Your task to perform on an android device: What's the weather going to be this weekend? Image 0: 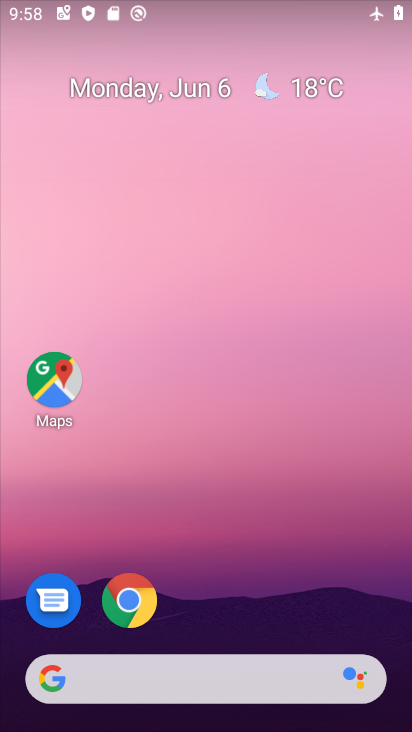
Step 0: drag from (249, 539) to (222, 23)
Your task to perform on an android device: What's the weather going to be this weekend? Image 1: 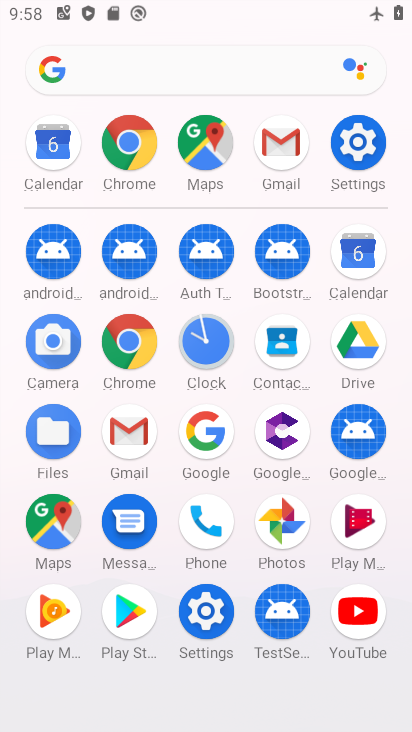
Step 1: drag from (13, 586) to (20, 238)
Your task to perform on an android device: What's the weather going to be this weekend? Image 2: 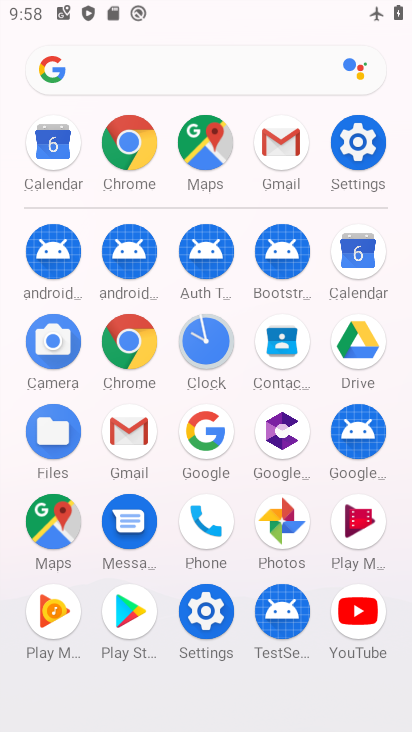
Step 2: click (128, 335)
Your task to perform on an android device: What's the weather going to be this weekend? Image 3: 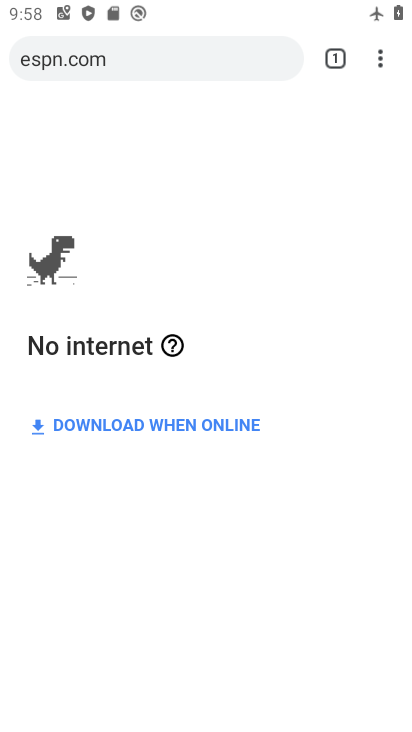
Step 3: drag from (279, 0) to (305, 356)
Your task to perform on an android device: What's the weather going to be this weekend? Image 4: 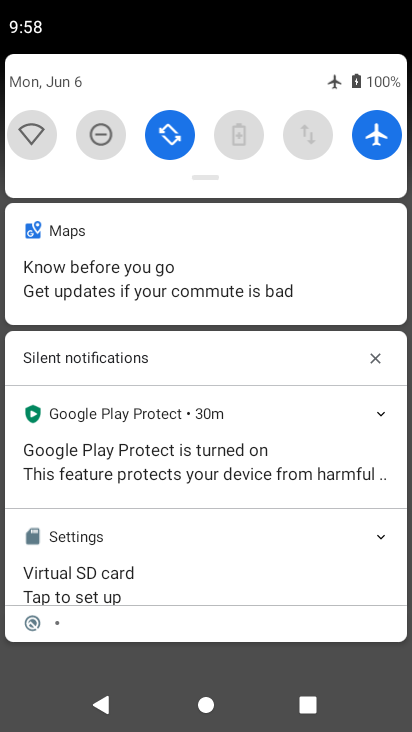
Step 4: click (29, 126)
Your task to perform on an android device: What's the weather going to be this weekend? Image 5: 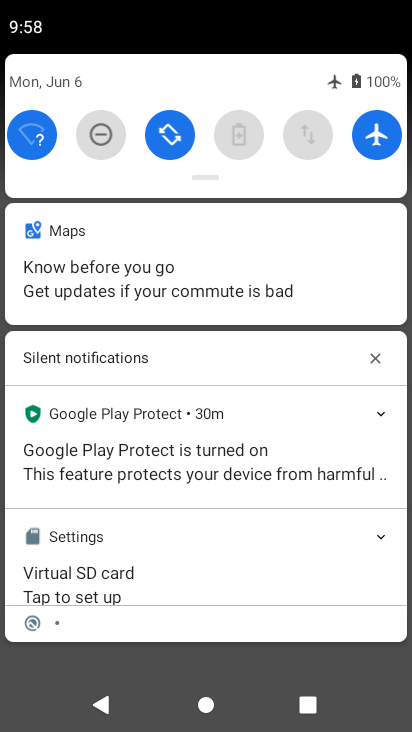
Step 5: drag from (306, 654) to (400, 174)
Your task to perform on an android device: What's the weather going to be this weekend? Image 6: 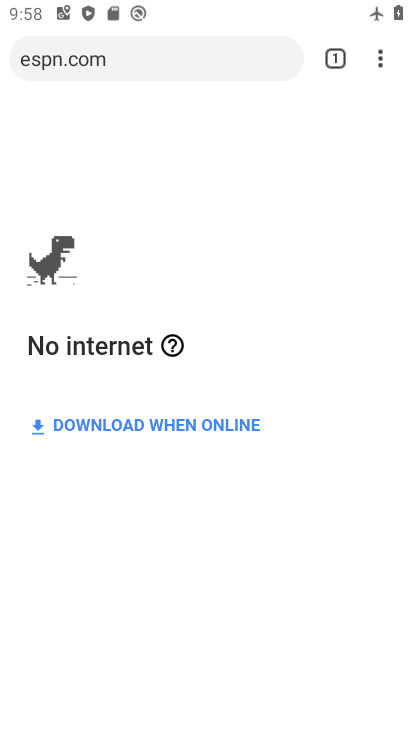
Step 6: click (152, 58)
Your task to perform on an android device: What's the weather going to be this weekend? Image 7: 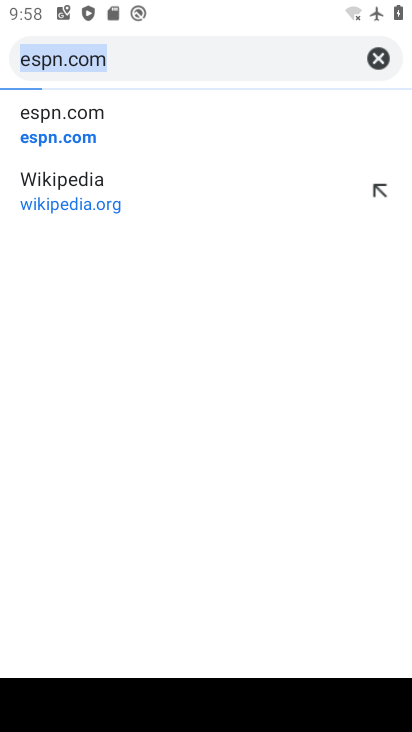
Step 7: click (376, 51)
Your task to perform on an android device: What's the weather going to be this weekend? Image 8: 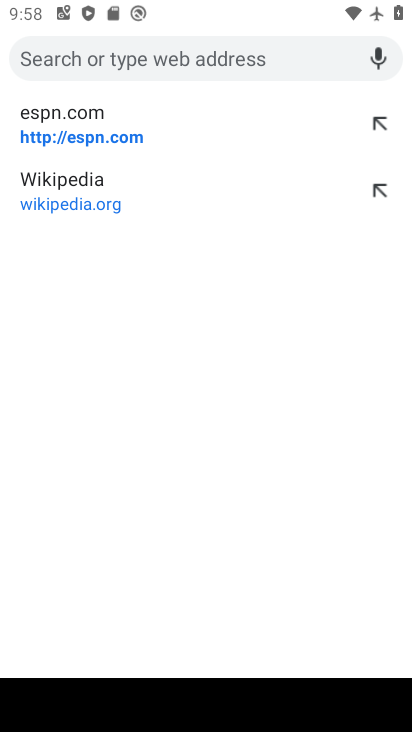
Step 8: click (188, 62)
Your task to perform on an android device: What's the weather going to be this weekend? Image 9: 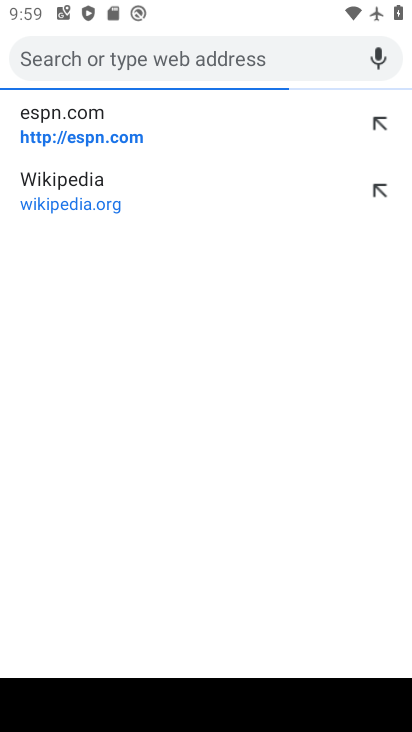
Step 9: type "What's the weather going to be this weekend?"
Your task to perform on an android device: What's the weather going to be this weekend? Image 10: 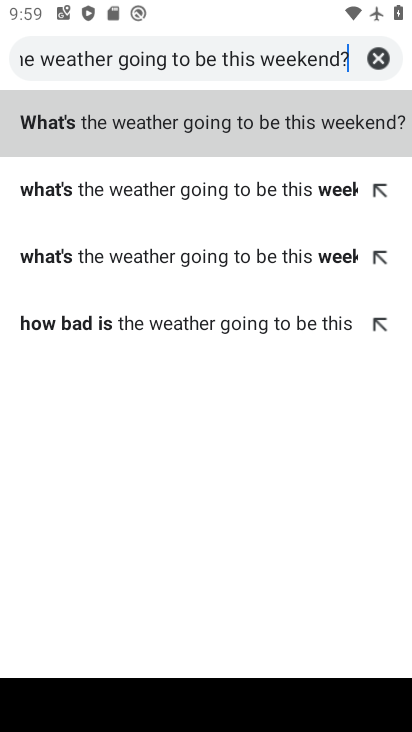
Step 10: type ""
Your task to perform on an android device: What's the weather going to be this weekend? Image 11: 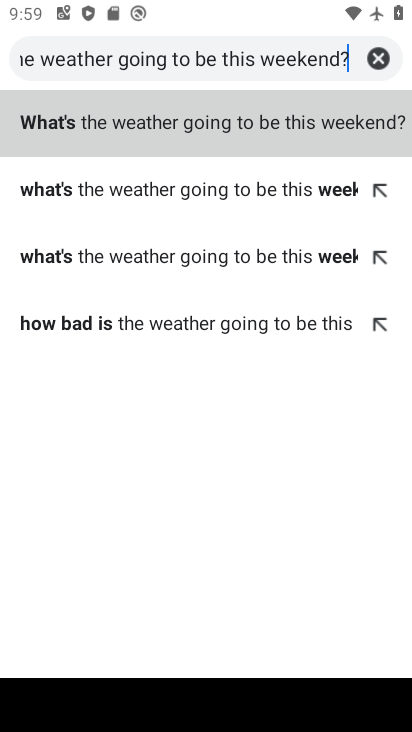
Step 11: click (160, 59)
Your task to perform on an android device: What's the weather going to be this weekend? Image 12: 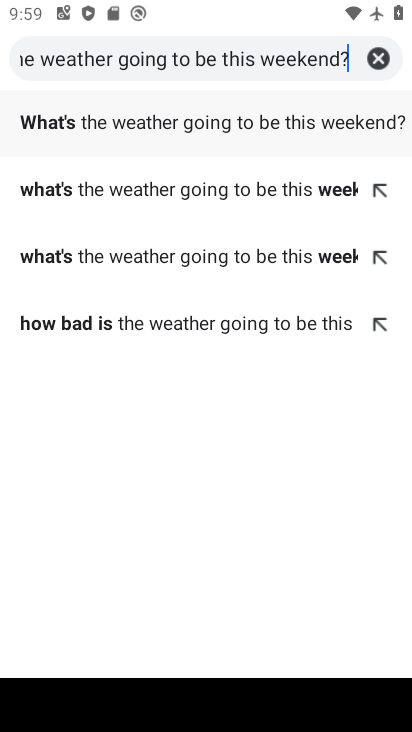
Step 12: click (160, 105)
Your task to perform on an android device: What's the weather going to be this weekend? Image 13: 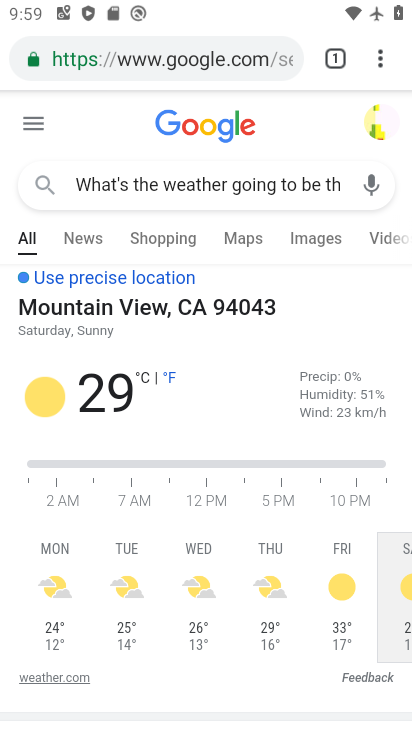
Step 13: task complete